Your task to perform on an android device: set the stopwatch Image 0: 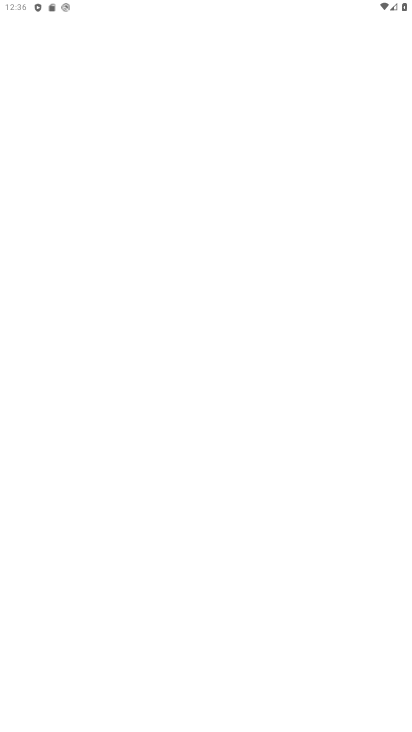
Step 0: press home button
Your task to perform on an android device: set the stopwatch Image 1: 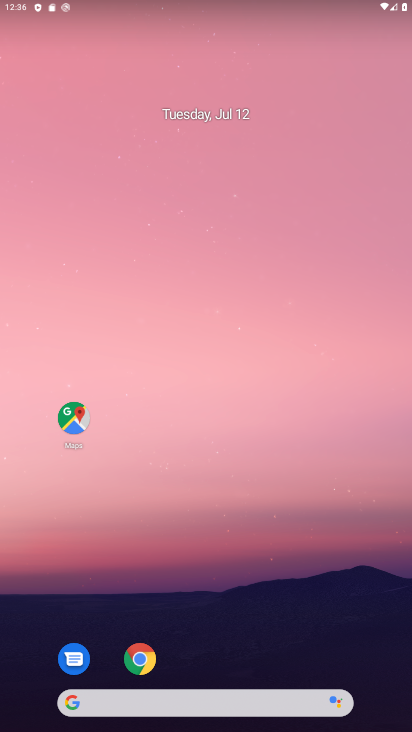
Step 1: drag from (297, 601) to (259, 91)
Your task to perform on an android device: set the stopwatch Image 2: 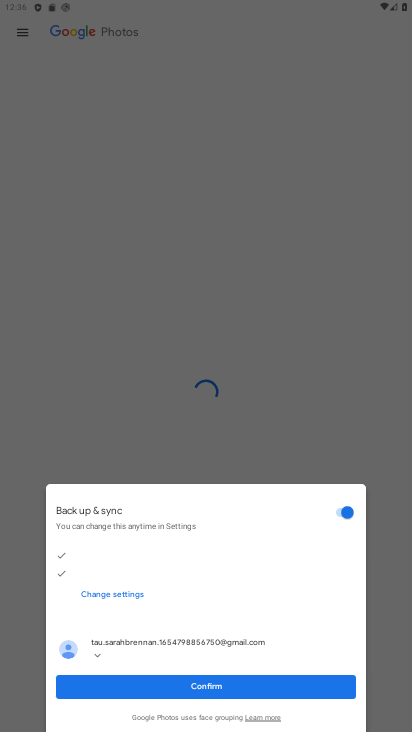
Step 2: click (299, 377)
Your task to perform on an android device: set the stopwatch Image 3: 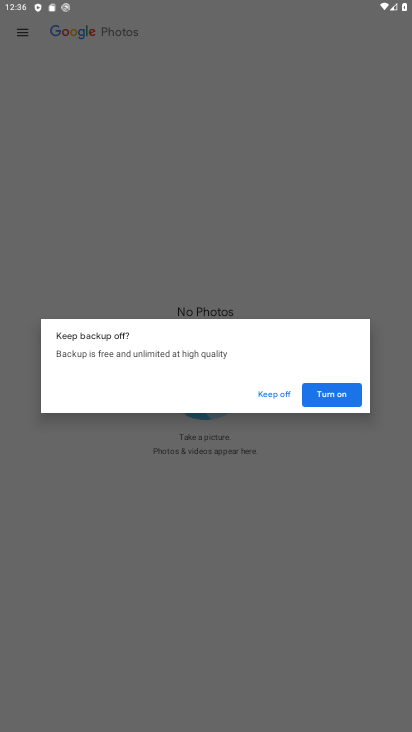
Step 3: press home button
Your task to perform on an android device: set the stopwatch Image 4: 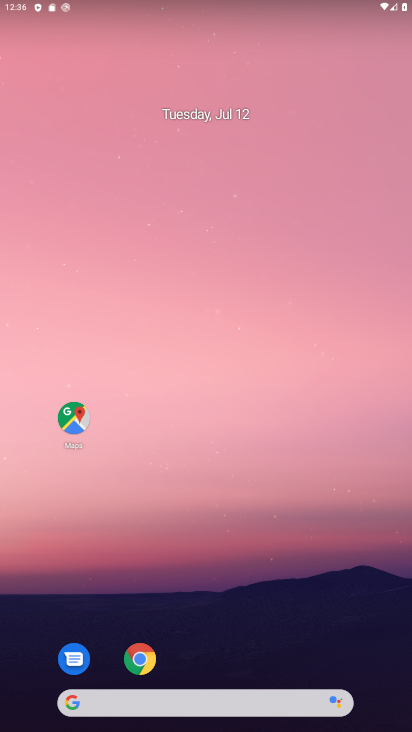
Step 4: drag from (316, 639) to (262, 156)
Your task to perform on an android device: set the stopwatch Image 5: 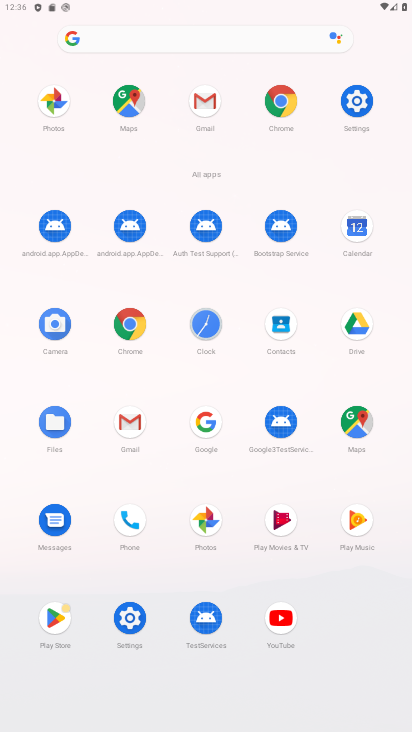
Step 5: click (207, 318)
Your task to perform on an android device: set the stopwatch Image 6: 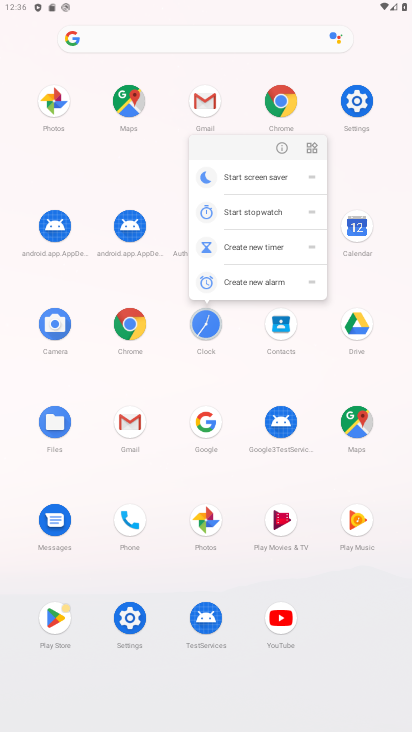
Step 6: click (206, 323)
Your task to perform on an android device: set the stopwatch Image 7: 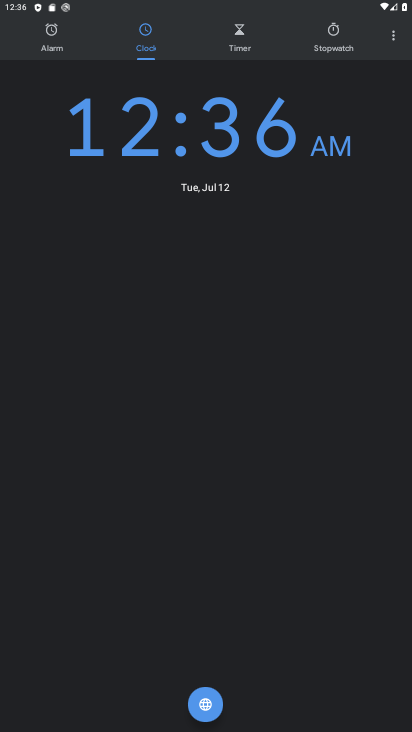
Step 7: click (343, 41)
Your task to perform on an android device: set the stopwatch Image 8: 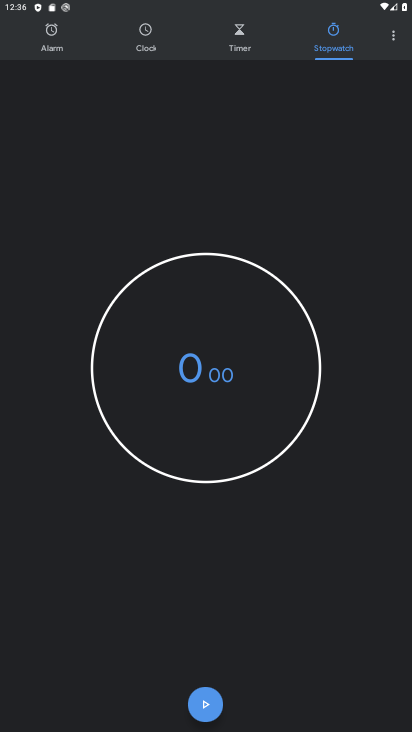
Step 8: click (212, 703)
Your task to perform on an android device: set the stopwatch Image 9: 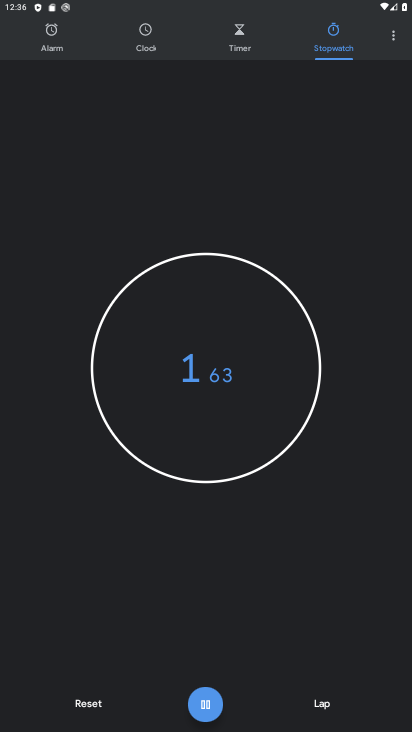
Step 9: click (212, 703)
Your task to perform on an android device: set the stopwatch Image 10: 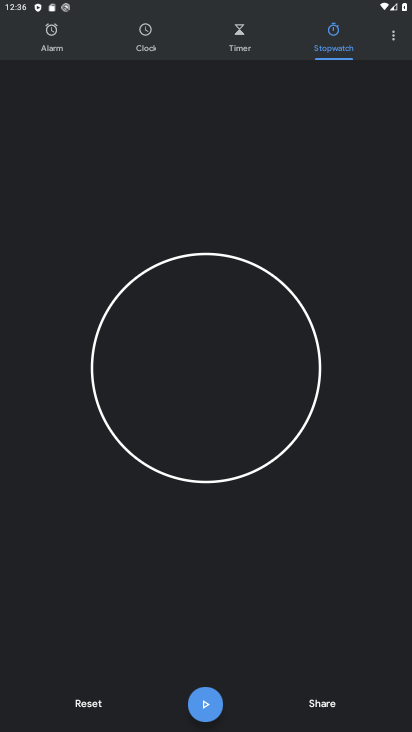
Step 10: task complete